Your task to perform on an android device: check google app version Image 0: 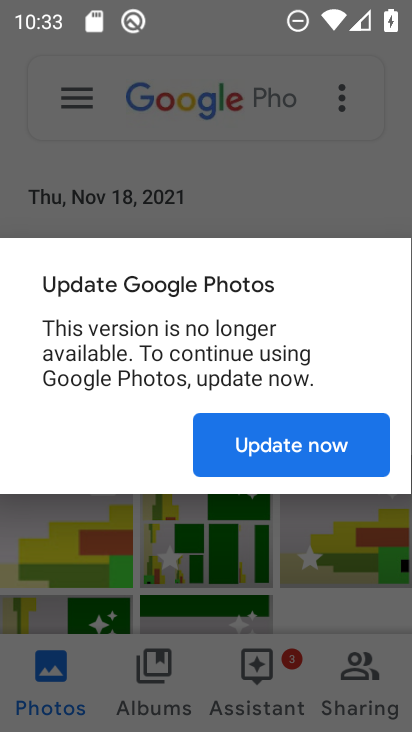
Step 0: click (280, 456)
Your task to perform on an android device: check google app version Image 1: 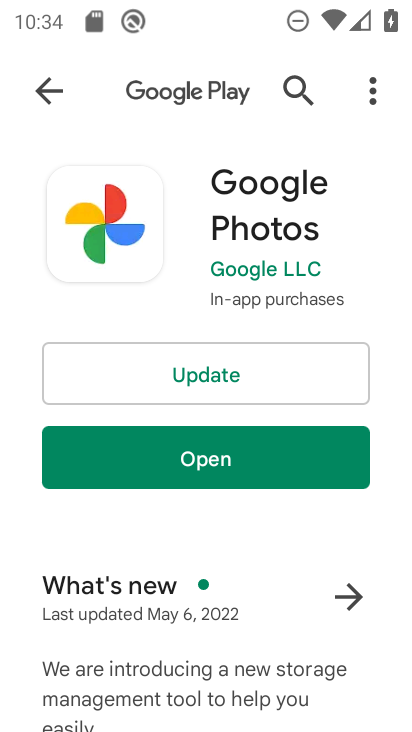
Step 1: press home button
Your task to perform on an android device: check google app version Image 2: 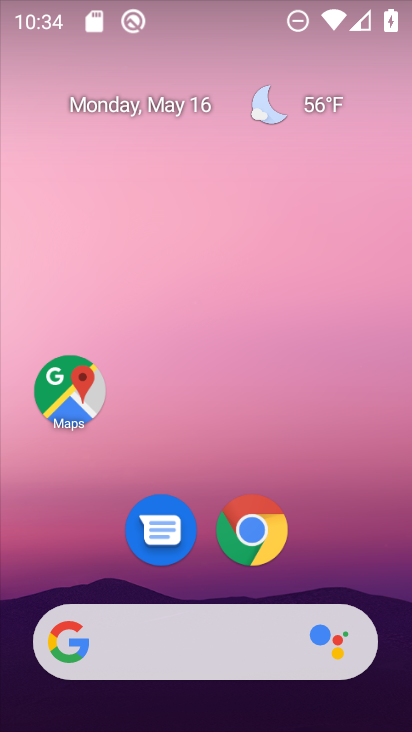
Step 2: drag from (330, 548) to (316, 138)
Your task to perform on an android device: check google app version Image 3: 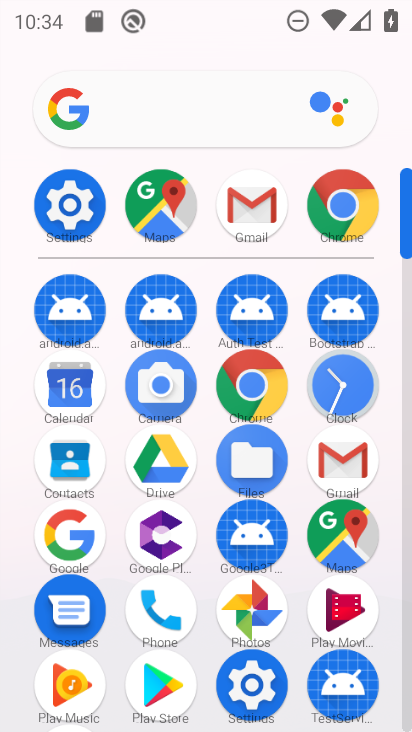
Step 3: click (85, 551)
Your task to perform on an android device: check google app version Image 4: 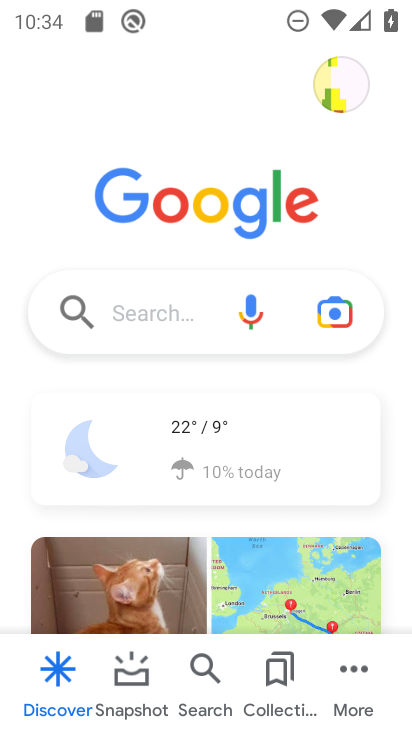
Step 4: click (348, 689)
Your task to perform on an android device: check google app version Image 5: 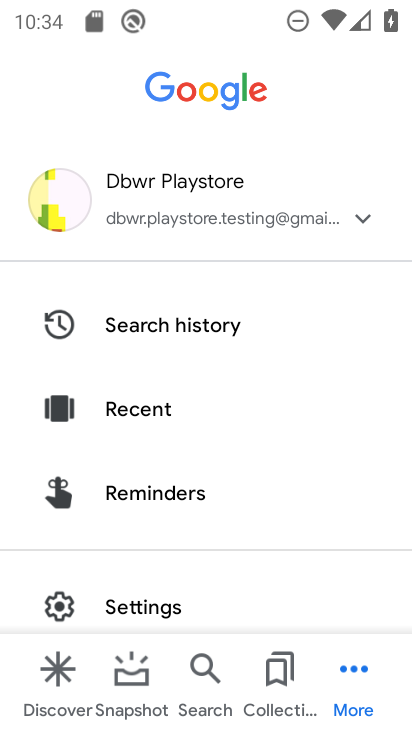
Step 5: click (150, 617)
Your task to perform on an android device: check google app version Image 6: 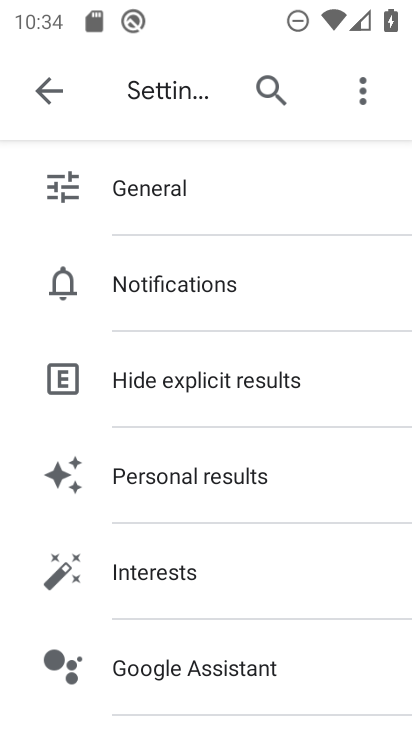
Step 6: drag from (309, 569) to (311, 403)
Your task to perform on an android device: check google app version Image 7: 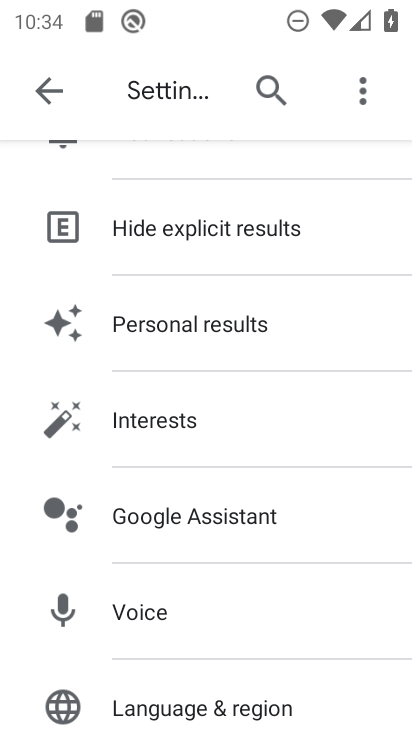
Step 7: drag from (294, 624) to (320, 438)
Your task to perform on an android device: check google app version Image 8: 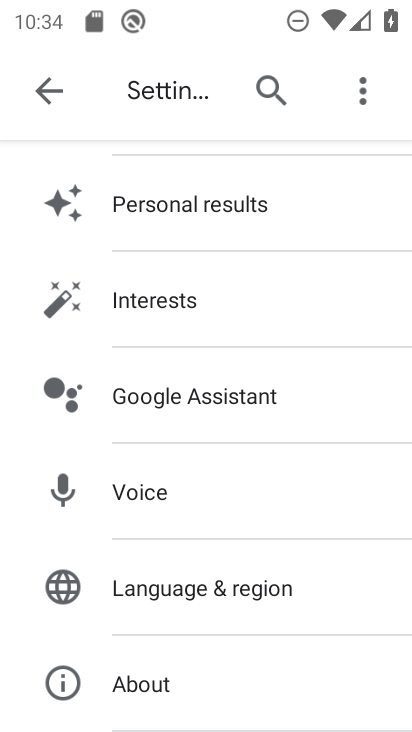
Step 8: drag from (280, 659) to (288, 498)
Your task to perform on an android device: check google app version Image 9: 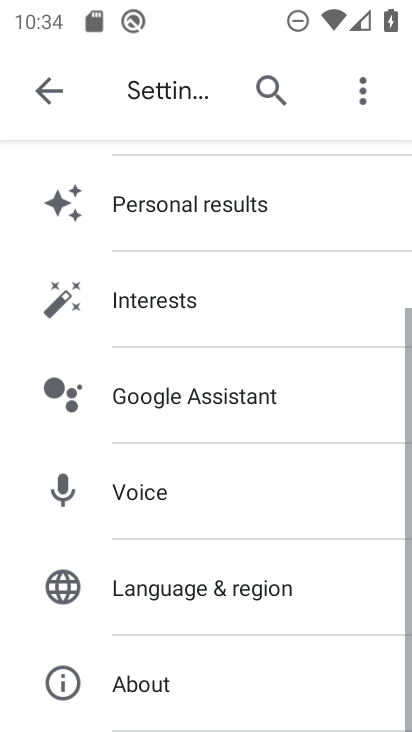
Step 9: click (175, 705)
Your task to perform on an android device: check google app version Image 10: 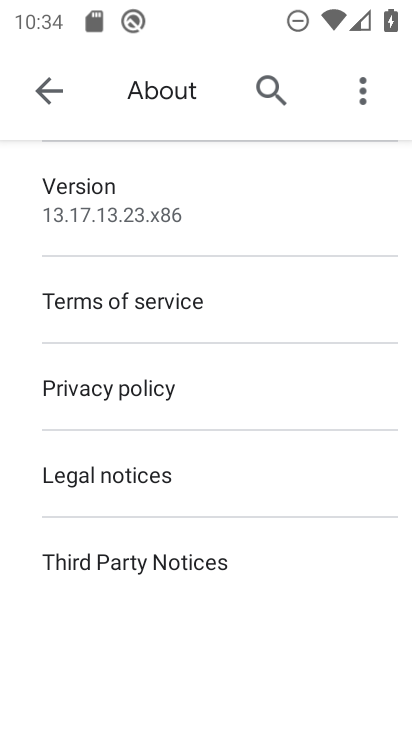
Step 10: task complete